Your task to perform on an android device: turn on the 24-hour format for clock Image 0: 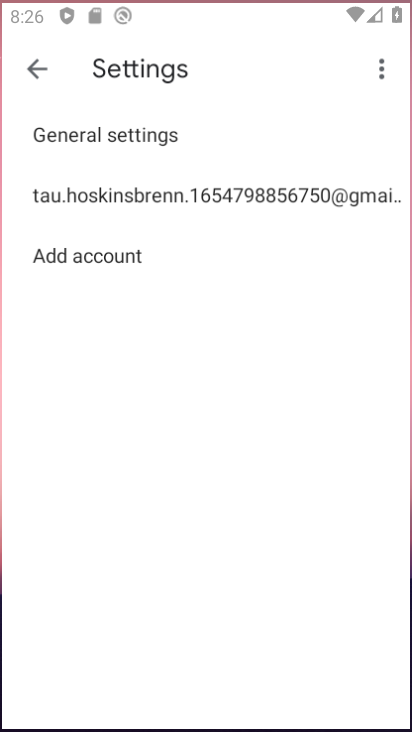
Step 0: drag from (213, 531) to (242, 376)
Your task to perform on an android device: turn on the 24-hour format for clock Image 1: 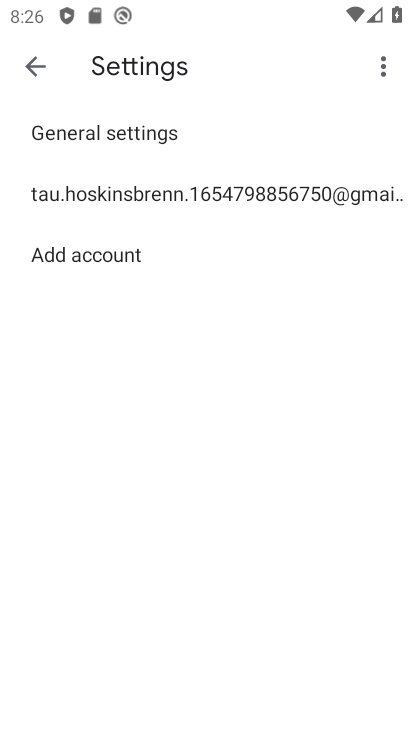
Step 1: press home button
Your task to perform on an android device: turn on the 24-hour format for clock Image 2: 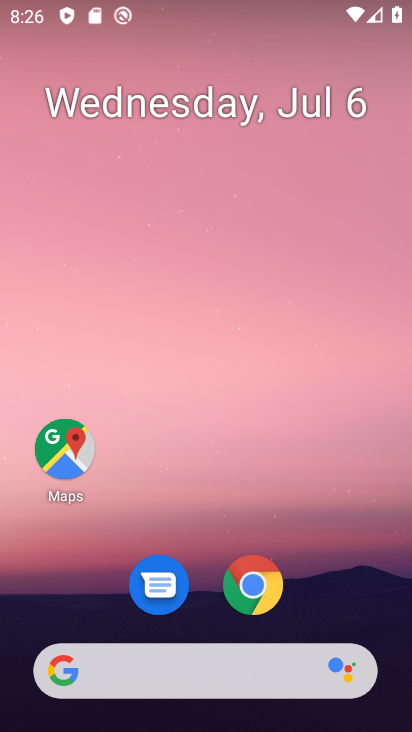
Step 2: drag from (220, 513) to (225, 52)
Your task to perform on an android device: turn on the 24-hour format for clock Image 3: 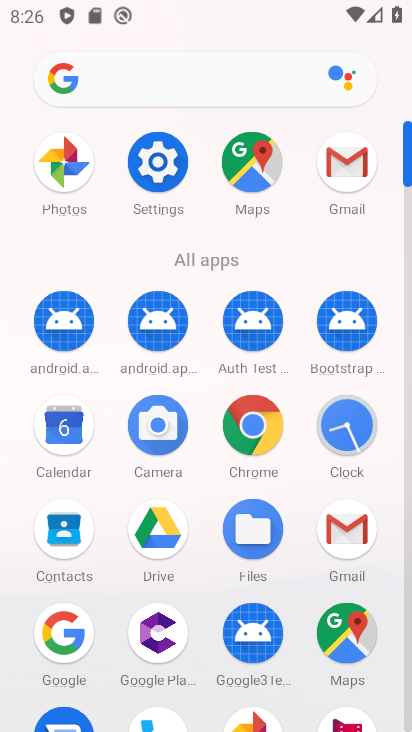
Step 3: click (340, 431)
Your task to perform on an android device: turn on the 24-hour format for clock Image 4: 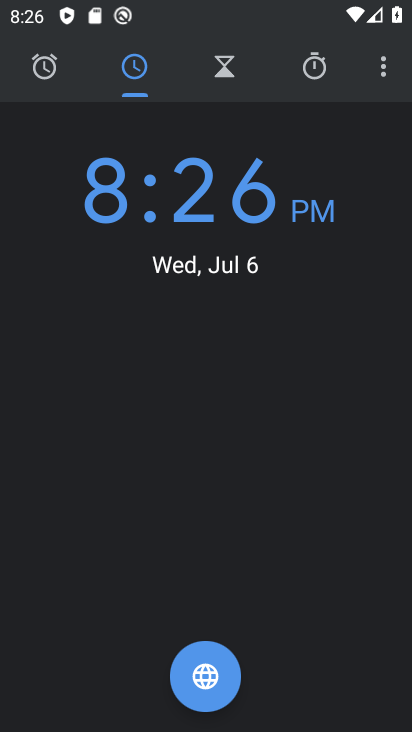
Step 4: click (386, 76)
Your task to perform on an android device: turn on the 24-hour format for clock Image 5: 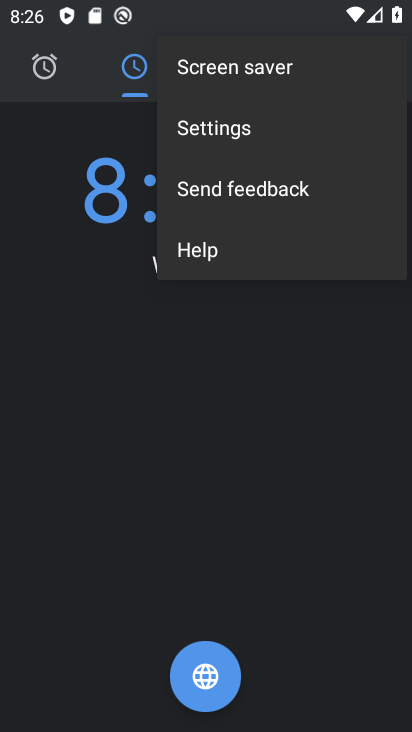
Step 5: click (288, 129)
Your task to perform on an android device: turn on the 24-hour format for clock Image 6: 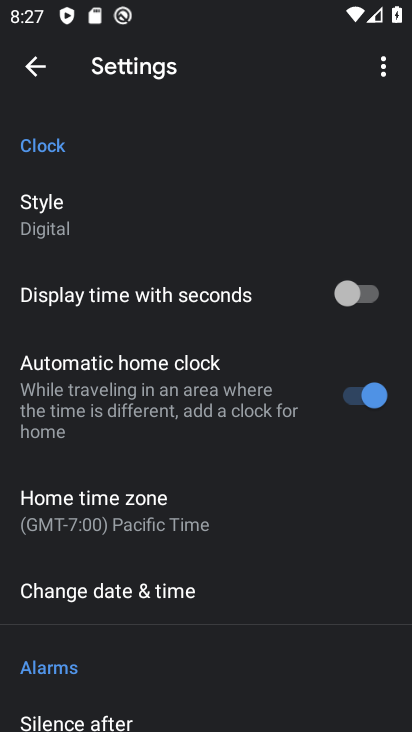
Step 6: click (189, 596)
Your task to perform on an android device: turn on the 24-hour format for clock Image 7: 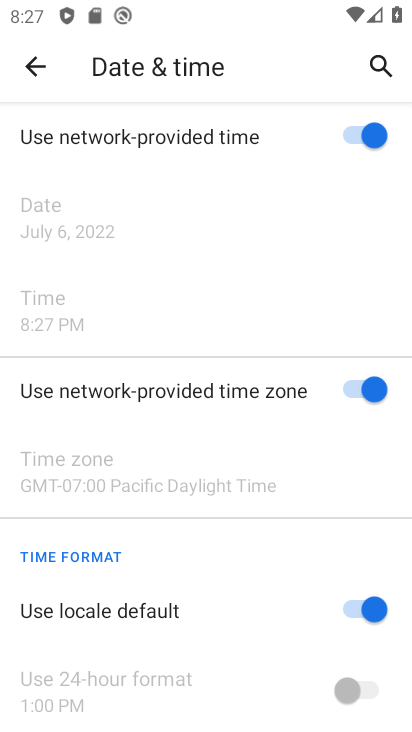
Step 7: click (353, 608)
Your task to perform on an android device: turn on the 24-hour format for clock Image 8: 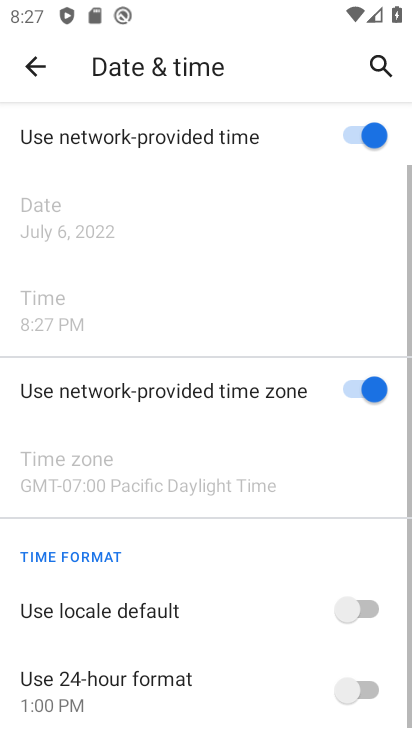
Step 8: click (362, 694)
Your task to perform on an android device: turn on the 24-hour format for clock Image 9: 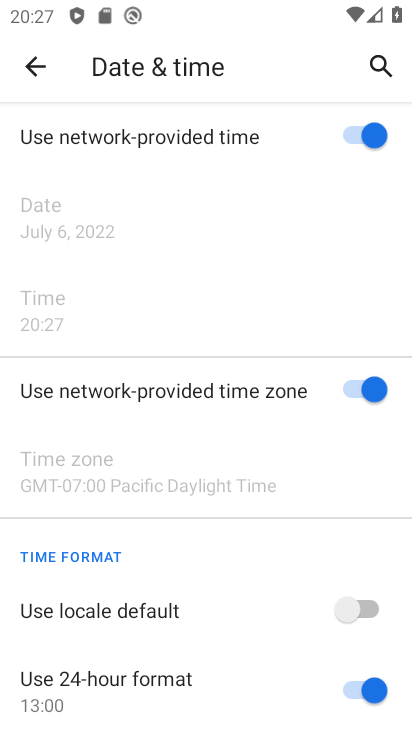
Step 9: task complete